Your task to perform on an android device: Show me recent news Image 0: 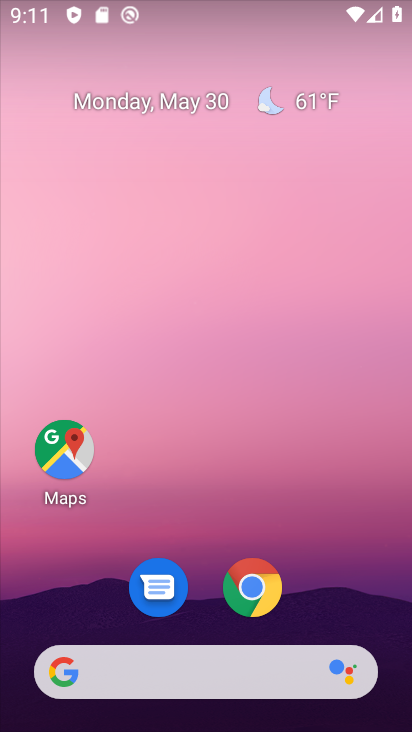
Step 0: click (204, 637)
Your task to perform on an android device: Show me recent news Image 1: 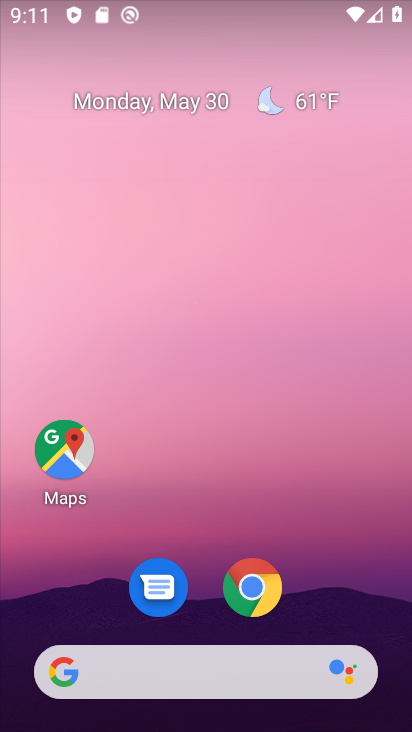
Step 1: click (200, 673)
Your task to perform on an android device: Show me recent news Image 2: 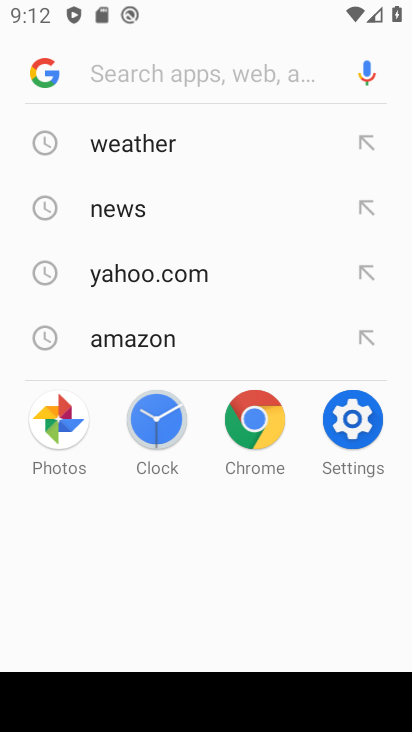
Step 2: click (124, 202)
Your task to perform on an android device: Show me recent news Image 3: 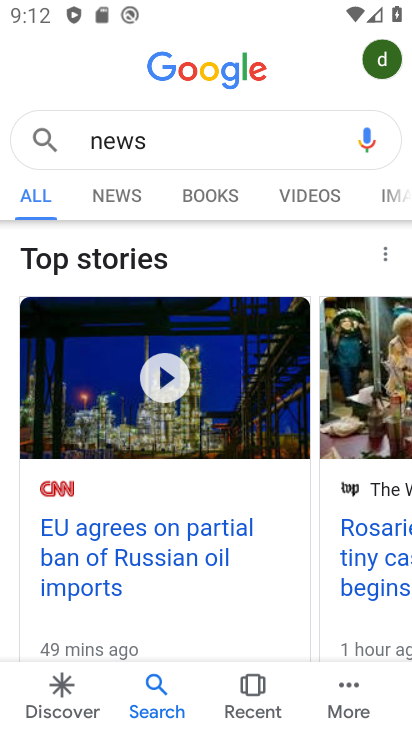
Step 3: click (113, 179)
Your task to perform on an android device: Show me recent news Image 4: 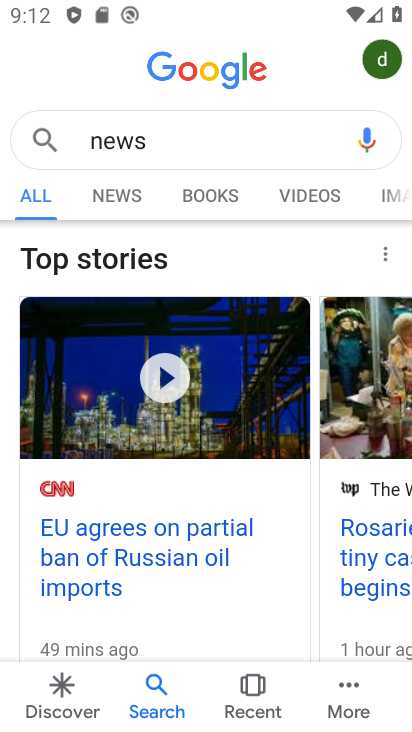
Step 4: task complete